Your task to perform on an android device: open sync settings in chrome Image 0: 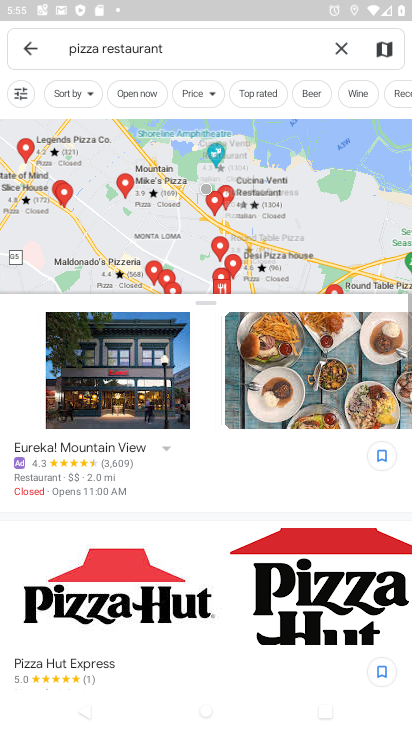
Step 0: drag from (199, 334) to (199, 300)
Your task to perform on an android device: open sync settings in chrome Image 1: 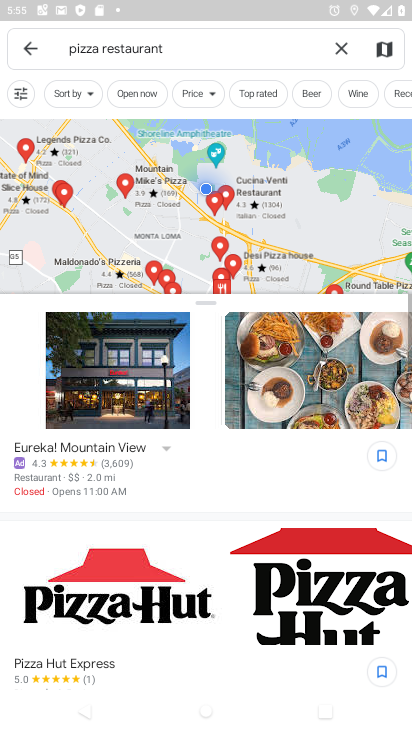
Step 1: press home button
Your task to perform on an android device: open sync settings in chrome Image 2: 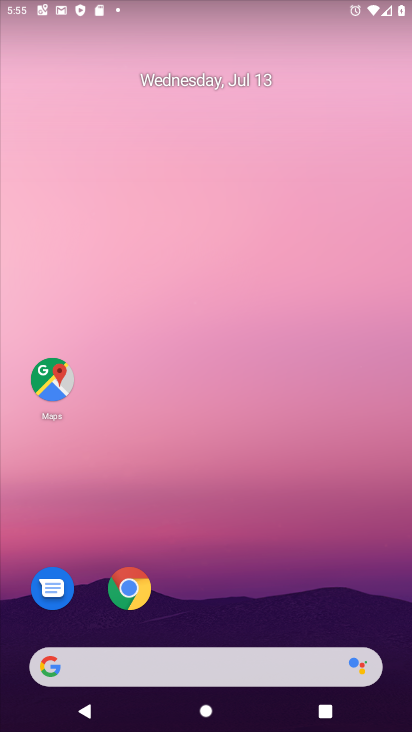
Step 2: click (132, 595)
Your task to perform on an android device: open sync settings in chrome Image 3: 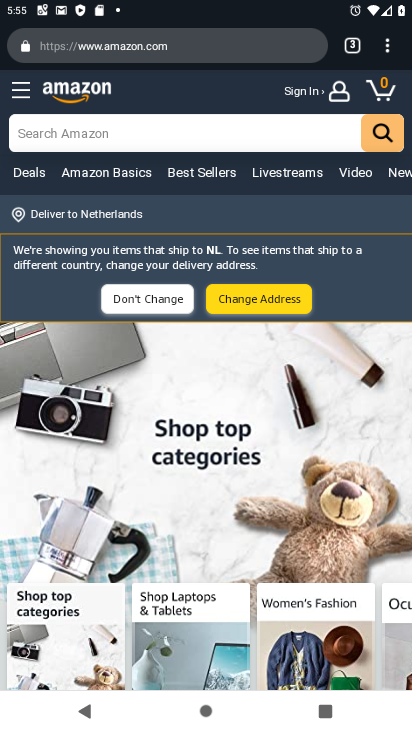
Step 3: click (390, 42)
Your task to perform on an android device: open sync settings in chrome Image 4: 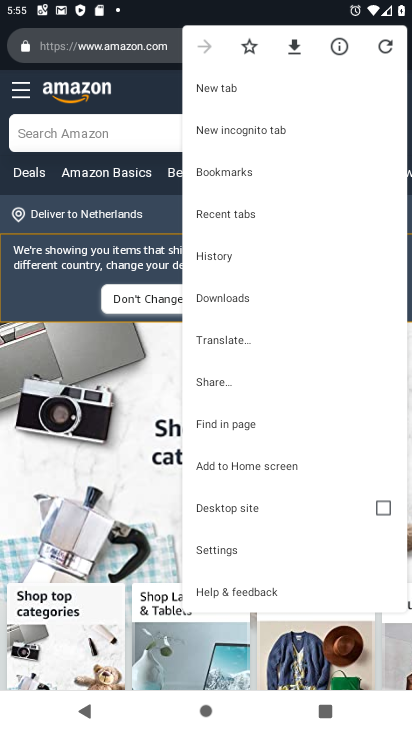
Step 4: click (217, 553)
Your task to perform on an android device: open sync settings in chrome Image 5: 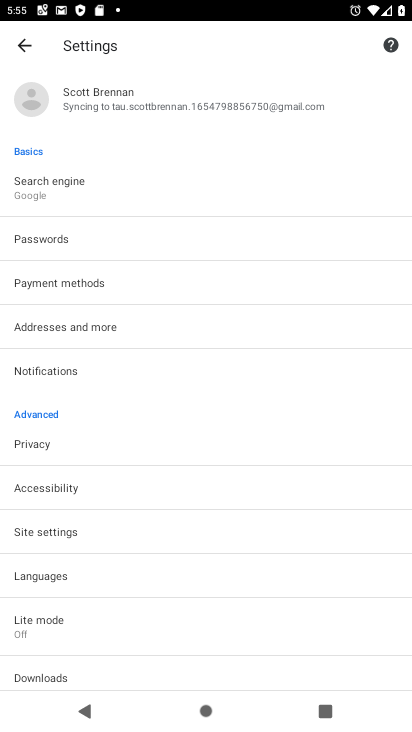
Step 5: click (144, 100)
Your task to perform on an android device: open sync settings in chrome Image 6: 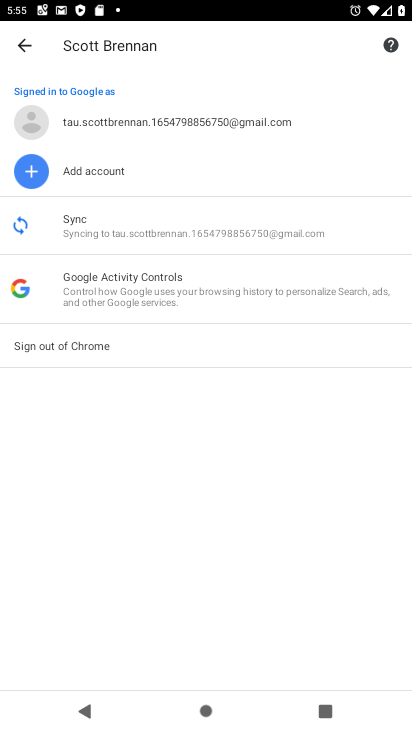
Step 6: click (98, 220)
Your task to perform on an android device: open sync settings in chrome Image 7: 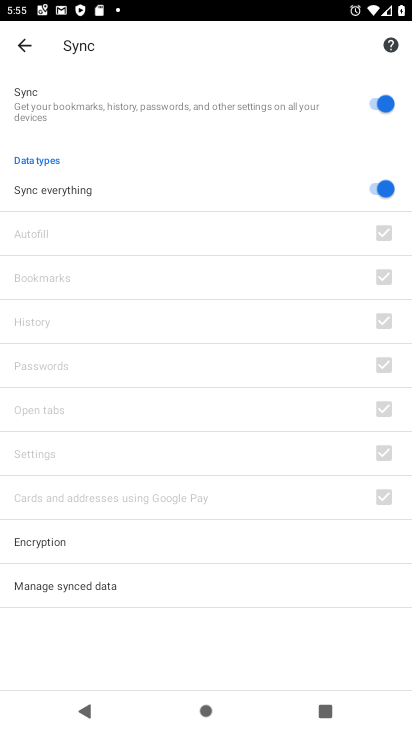
Step 7: task complete